Your task to perform on an android device: toggle data saver in the chrome app Image 0: 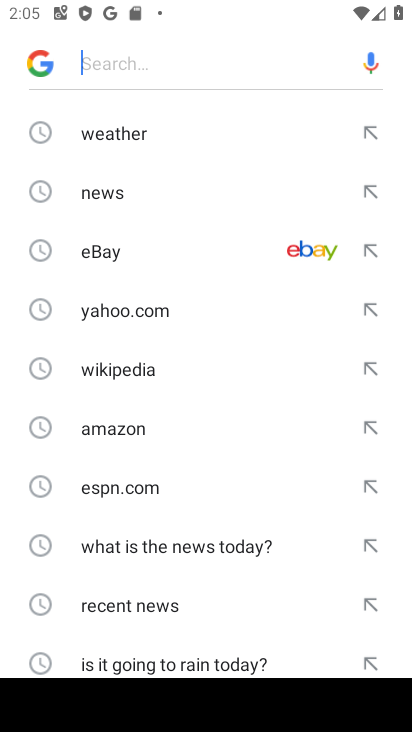
Step 0: press home button
Your task to perform on an android device: toggle data saver in the chrome app Image 1: 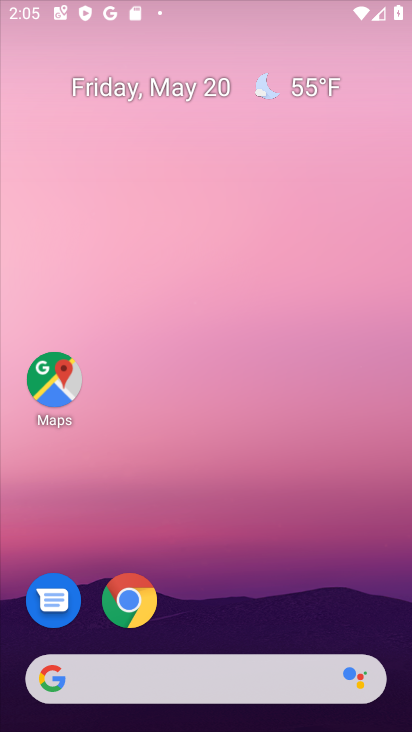
Step 1: drag from (140, 587) to (62, 189)
Your task to perform on an android device: toggle data saver in the chrome app Image 2: 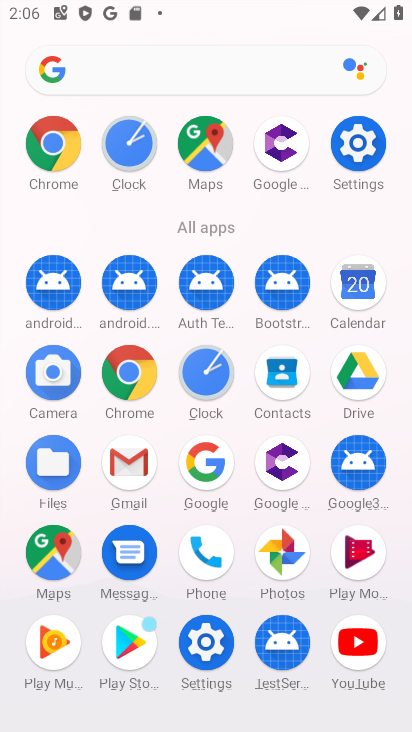
Step 2: click (57, 167)
Your task to perform on an android device: toggle data saver in the chrome app Image 3: 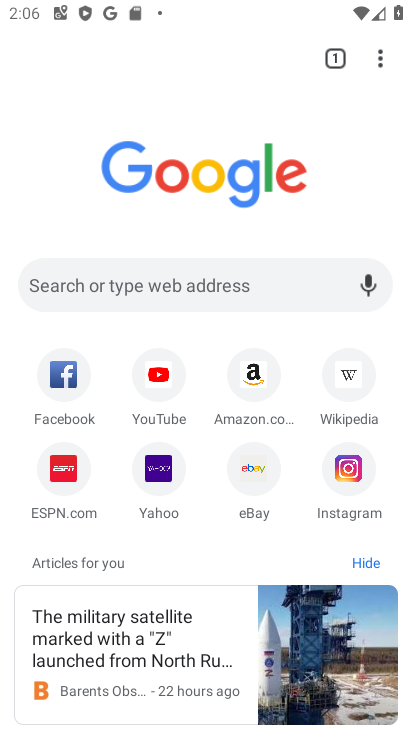
Step 3: click (387, 65)
Your task to perform on an android device: toggle data saver in the chrome app Image 4: 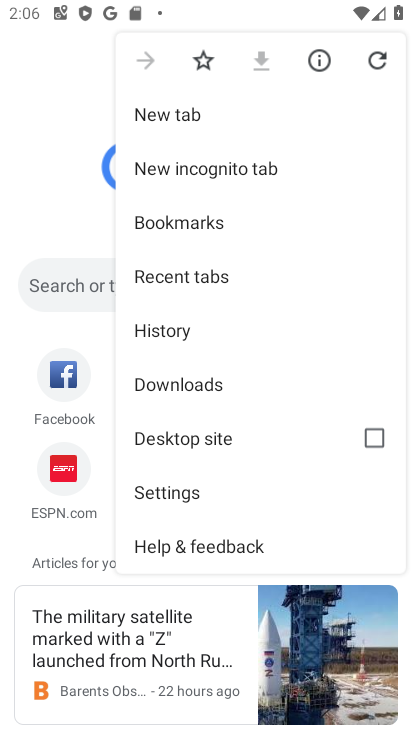
Step 4: click (231, 487)
Your task to perform on an android device: toggle data saver in the chrome app Image 5: 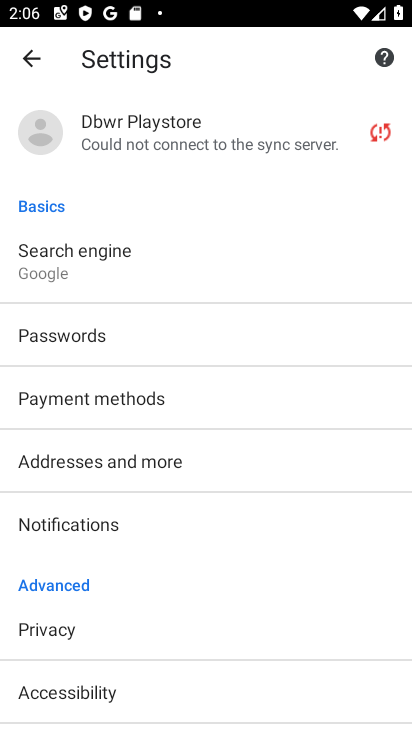
Step 5: drag from (167, 595) to (129, 138)
Your task to perform on an android device: toggle data saver in the chrome app Image 6: 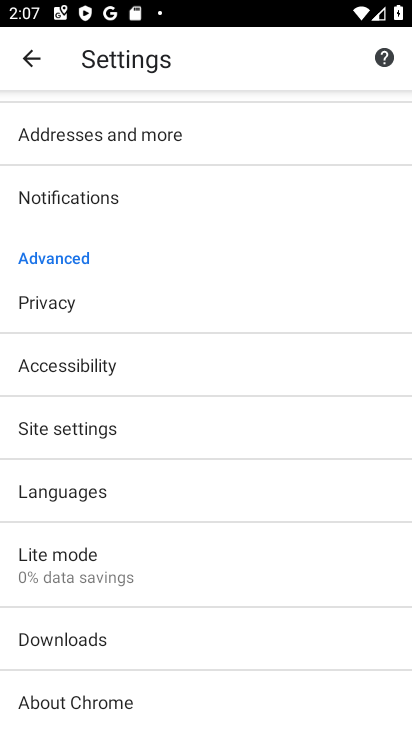
Step 6: click (100, 575)
Your task to perform on an android device: toggle data saver in the chrome app Image 7: 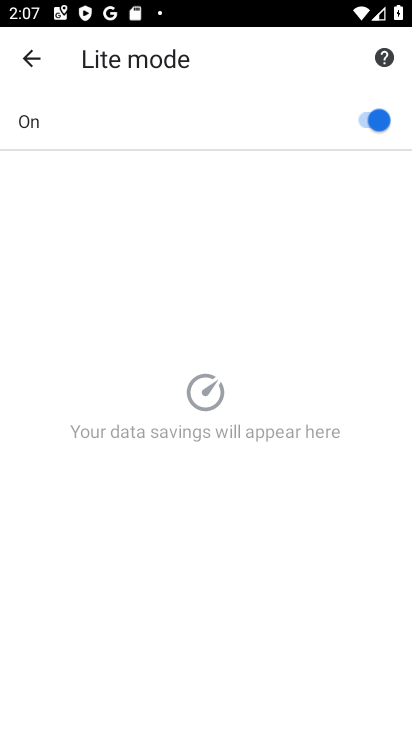
Step 7: click (369, 133)
Your task to perform on an android device: toggle data saver in the chrome app Image 8: 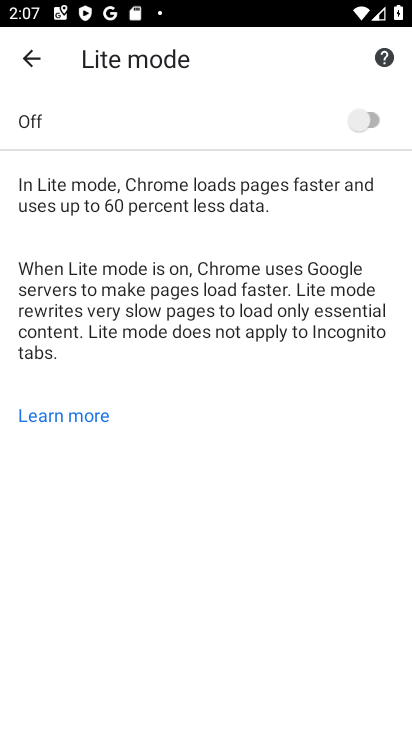
Step 8: task complete